Your task to perform on an android device: move a message to another label in the gmail app Image 0: 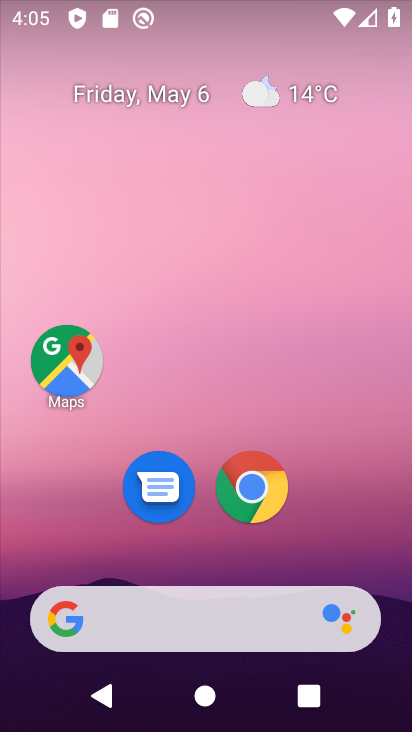
Step 0: drag from (211, 581) to (237, 25)
Your task to perform on an android device: move a message to another label in the gmail app Image 1: 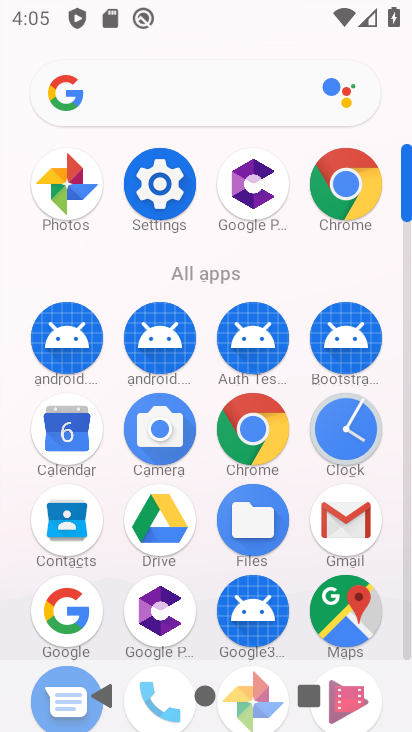
Step 1: click (330, 514)
Your task to perform on an android device: move a message to another label in the gmail app Image 2: 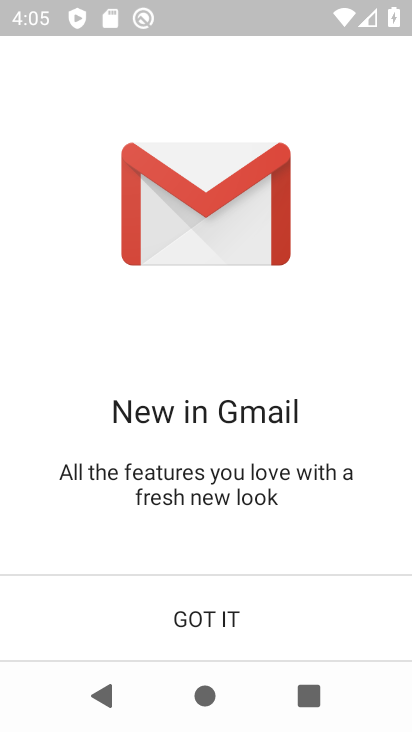
Step 2: click (235, 633)
Your task to perform on an android device: move a message to another label in the gmail app Image 3: 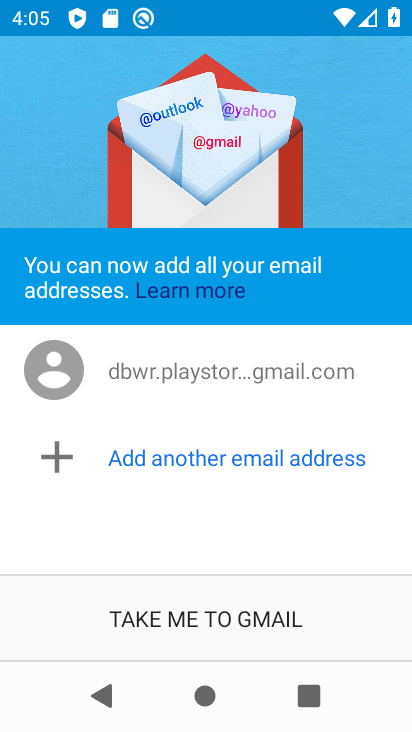
Step 3: click (238, 633)
Your task to perform on an android device: move a message to another label in the gmail app Image 4: 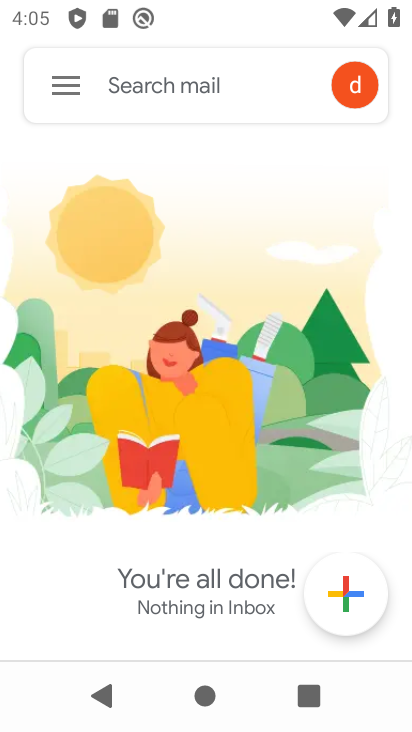
Step 4: click (53, 81)
Your task to perform on an android device: move a message to another label in the gmail app Image 5: 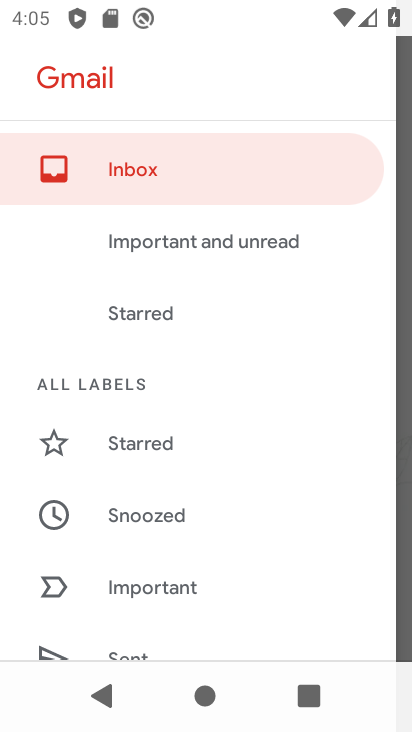
Step 5: click (137, 188)
Your task to perform on an android device: move a message to another label in the gmail app Image 6: 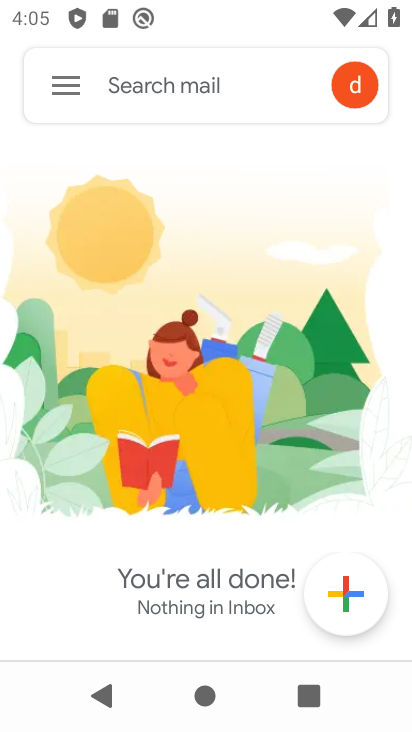
Step 6: task complete